Your task to perform on an android device: Open the calendar and show me this week's events? Image 0: 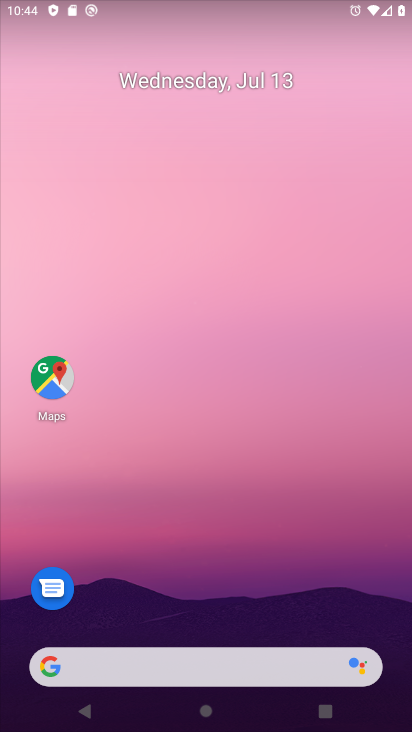
Step 0: drag from (169, 535) to (296, 56)
Your task to perform on an android device: Open the calendar and show me this week's events? Image 1: 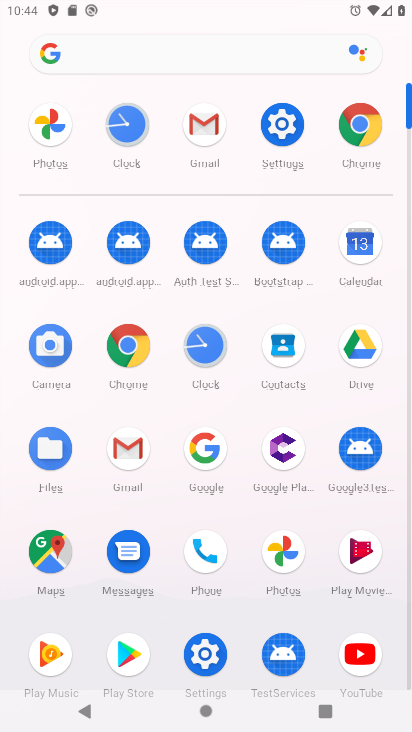
Step 1: click (356, 254)
Your task to perform on an android device: Open the calendar and show me this week's events? Image 2: 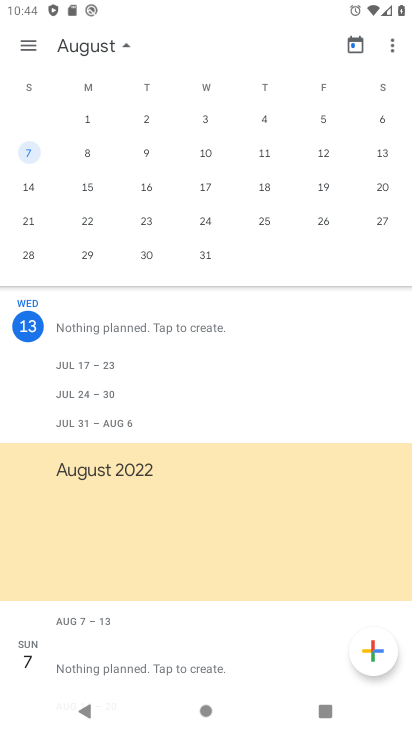
Step 2: drag from (71, 119) to (402, 146)
Your task to perform on an android device: Open the calendar and show me this week's events? Image 3: 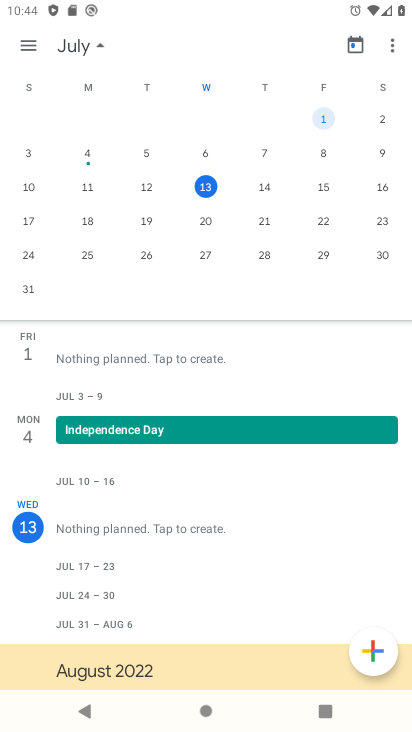
Step 3: click (37, 222)
Your task to perform on an android device: Open the calendar and show me this week's events? Image 4: 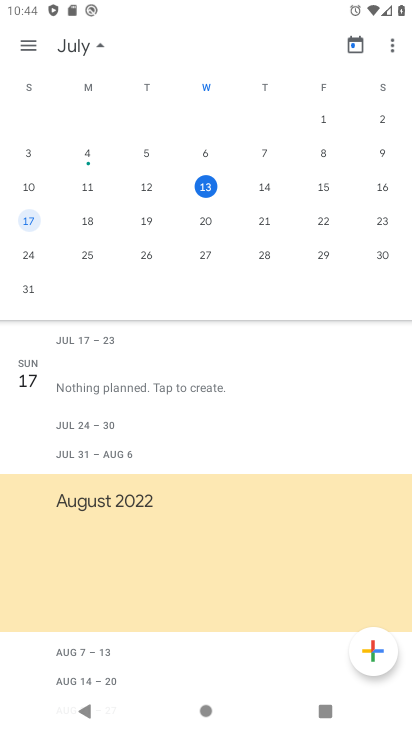
Step 4: click (264, 192)
Your task to perform on an android device: Open the calendar and show me this week's events? Image 5: 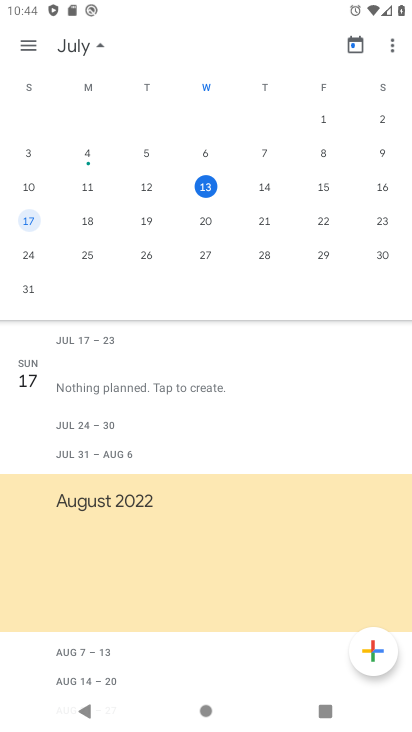
Step 5: click (264, 186)
Your task to perform on an android device: Open the calendar and show me this week's events? Image 6: 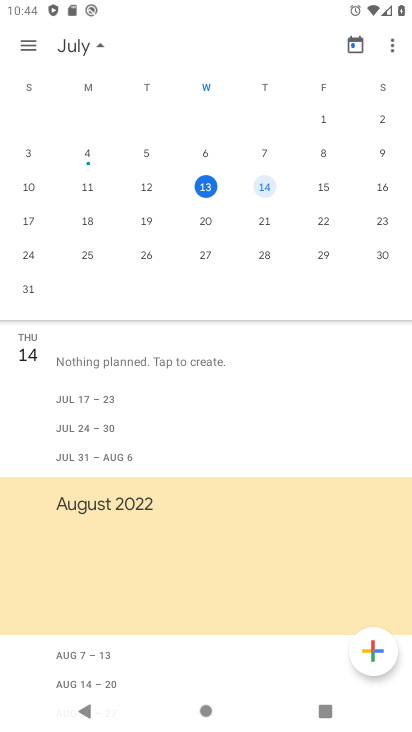
Step 6: task complete